Your task to perform on an android device: turn on priority inbox in the gmail app Image 0: 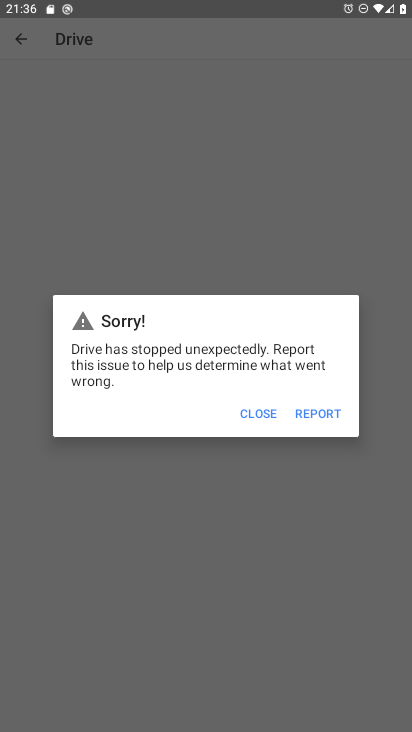
Step 0: press home button
Your task to perform on an android device: turn on priority inbox in the gmail app Image 1: 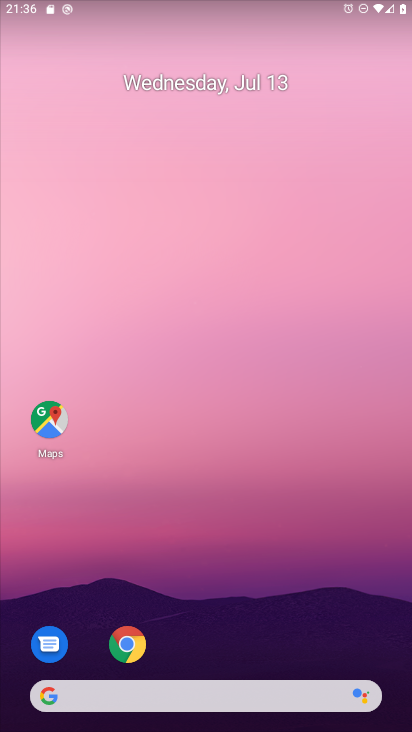
Step 1: drag from (251, 589) to (260, 117)
Your task to perform on an android device: turn on priority inbox in the gmail app Image 2: 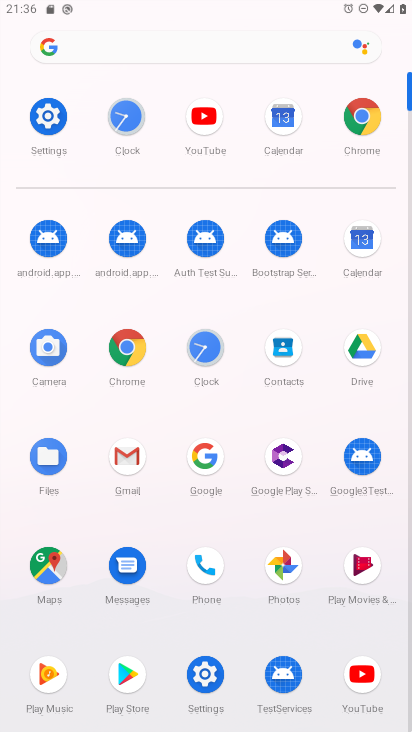
Step 2: click (120, 467)
Your task to perform on an android device: turn on priority inbox in the gmail app Image 3: 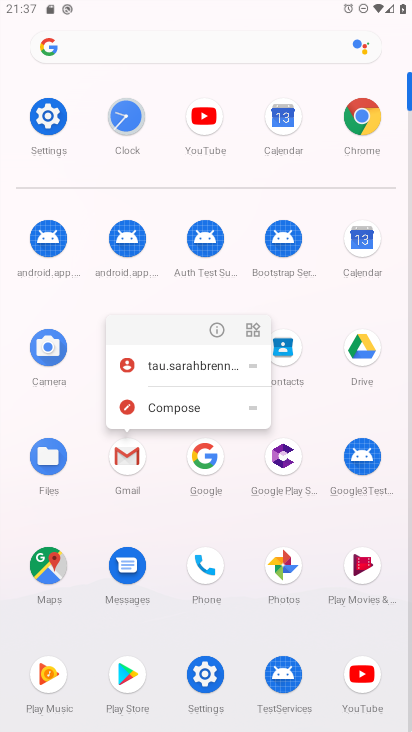
Step 3: click (131, 457)
Your task to perform on an android device: turn on priority inbox in the gmail app Image 4: 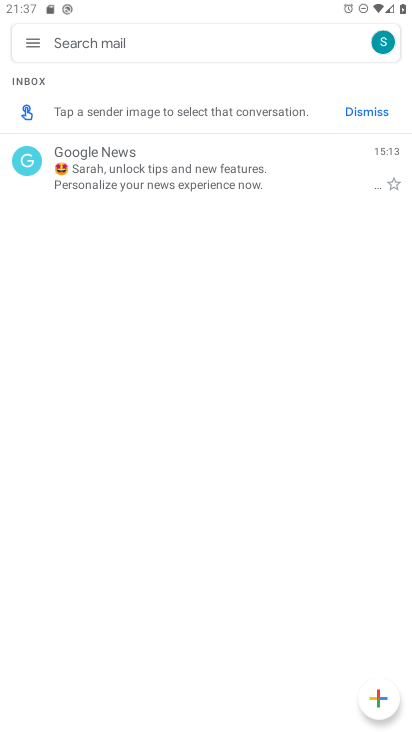
Step 4: click (37, 48)
Your task to perform on an android device: turn on priority inbox in the gmail app Image 5: 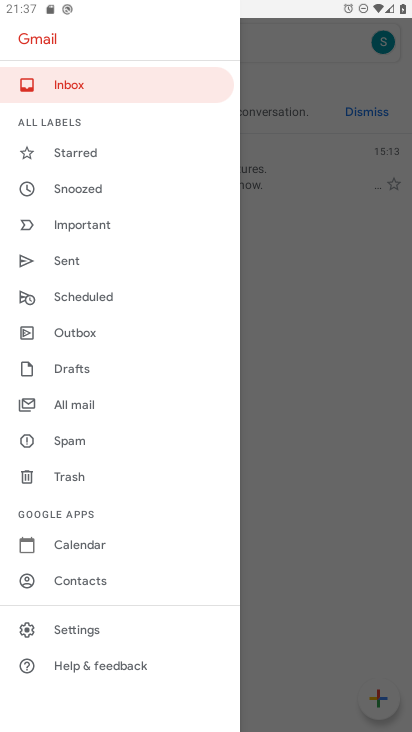
Step 5: click (94, 632)
Your task to perform on an android device: turn on priority inbox in the gmail app Image 6: 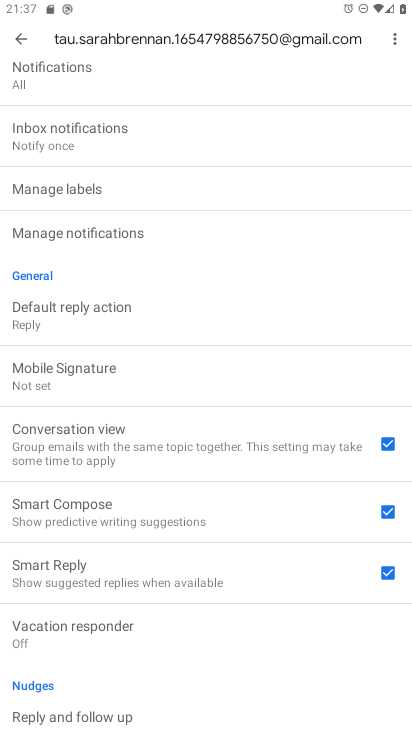
Step 6: drag from (255, 90) to (249, 425)
Your task to perform on an android device: turn on priority inbox in the gmail app Image 7: 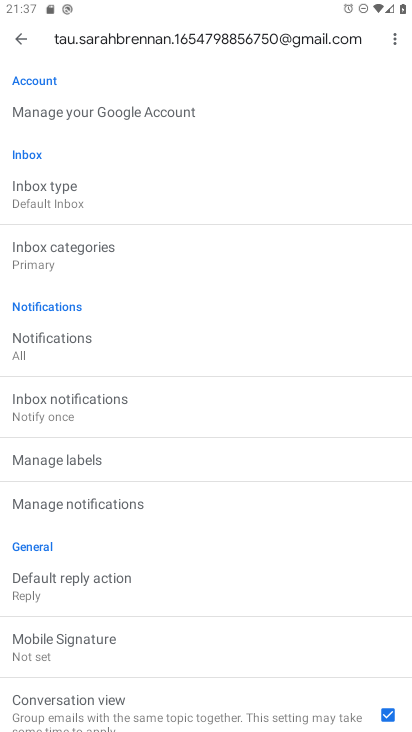
Step 7: click (35, 199)
Your task to perform on an android device: turn on priority inbox in the gmail app Image 8: 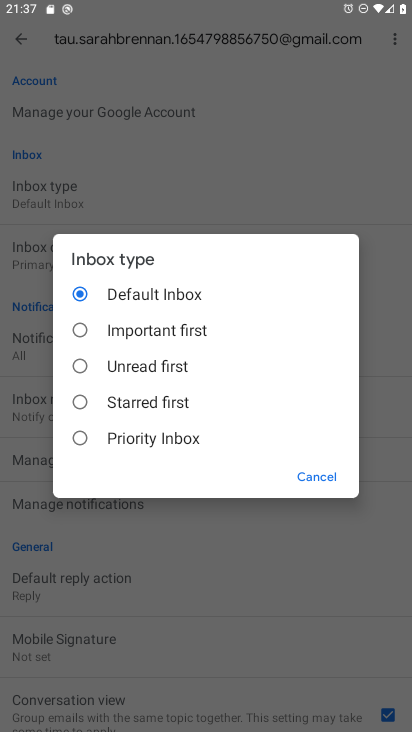
Step 8: click (83, 436)
Your task to perform on an android device: turn on priority inbox in the gmail app Image 9: 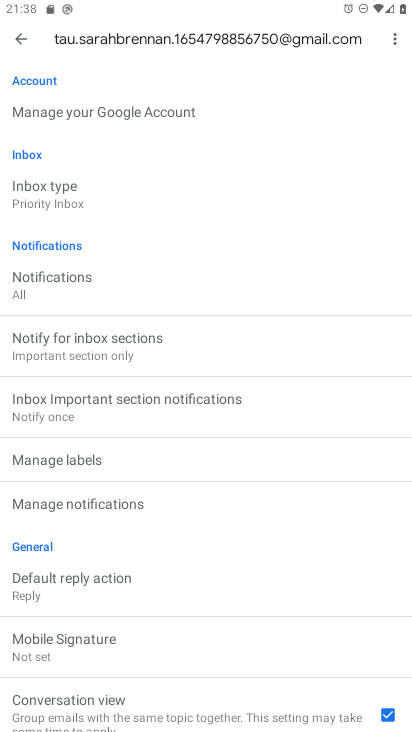
Step 9: task complete